Your task to perform on an android device: Open Yahoo.com Image 0: 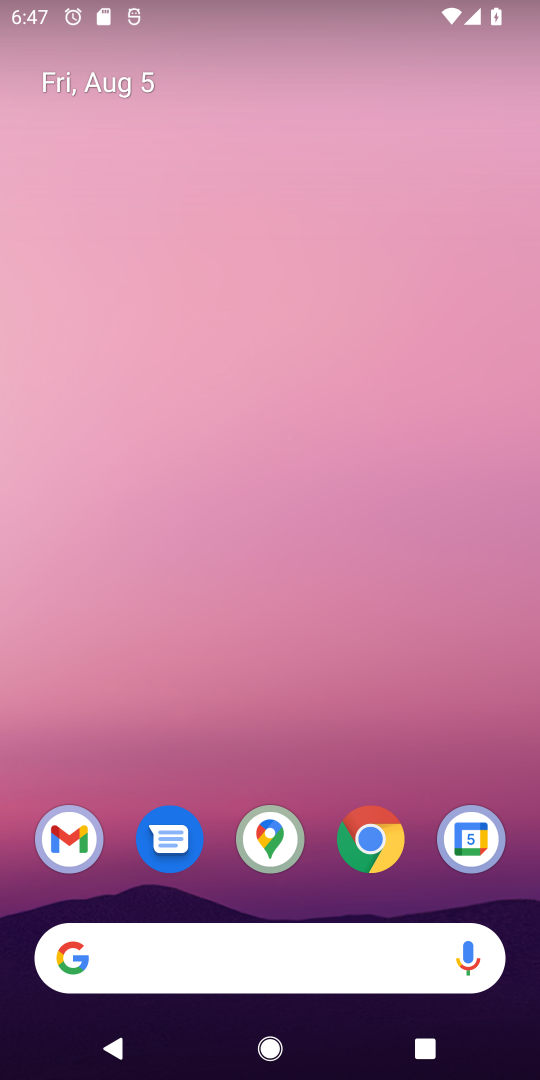
Step 0: click (379, 860)
Your task to perform on an android device: Open Yahoo.com Image 1: 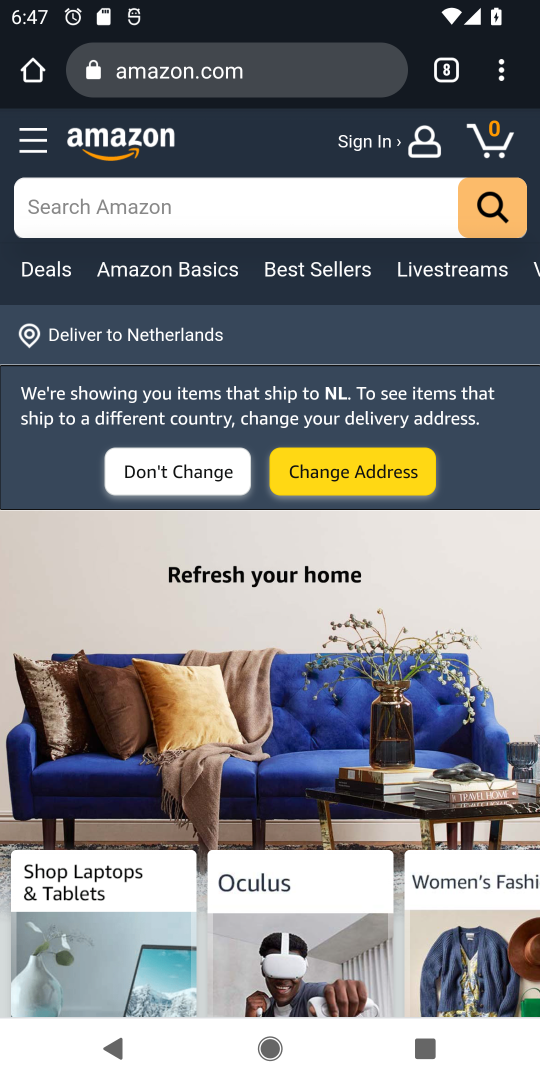
Step 1: click (444, 68)
Your task to perform on an android device: Open Yahoo.com Image 2: 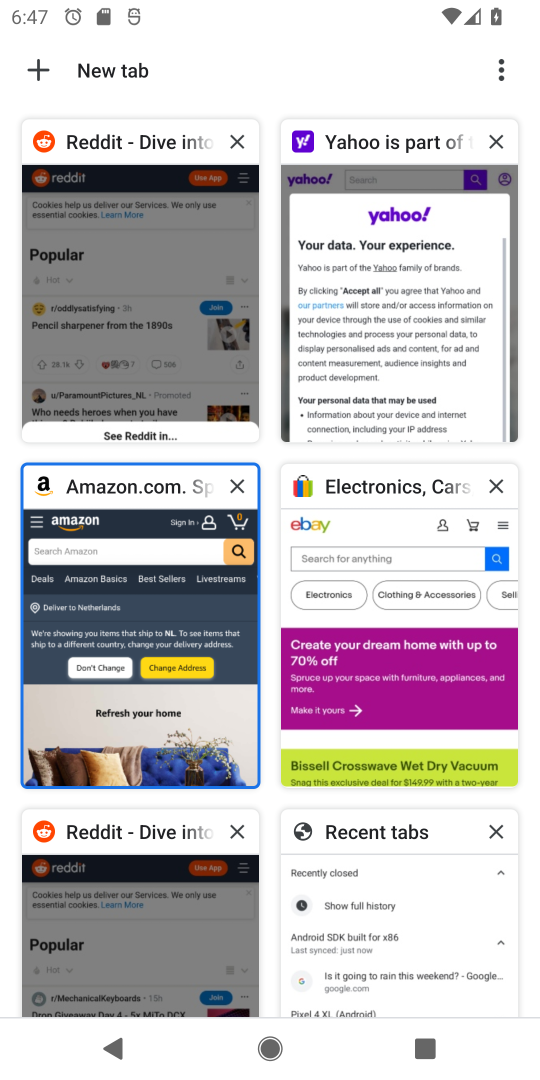
Step 2: click (29, 53)
Your task to perform on an android device: Open Yahoo.com Image 3: 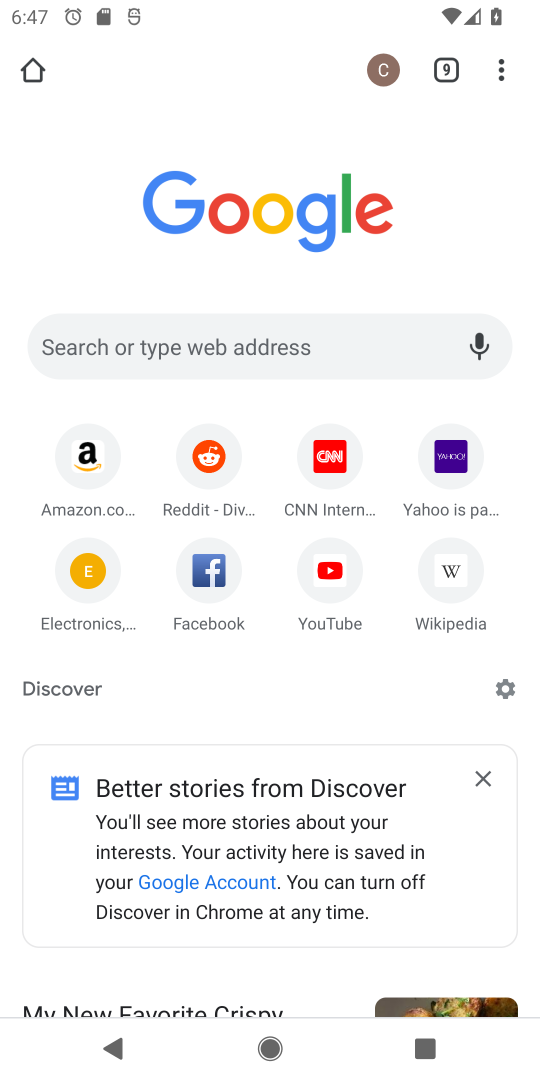
Step 3: click (447, 467)
Your task to perform on an android device: Open Yahoo.com Image 4: 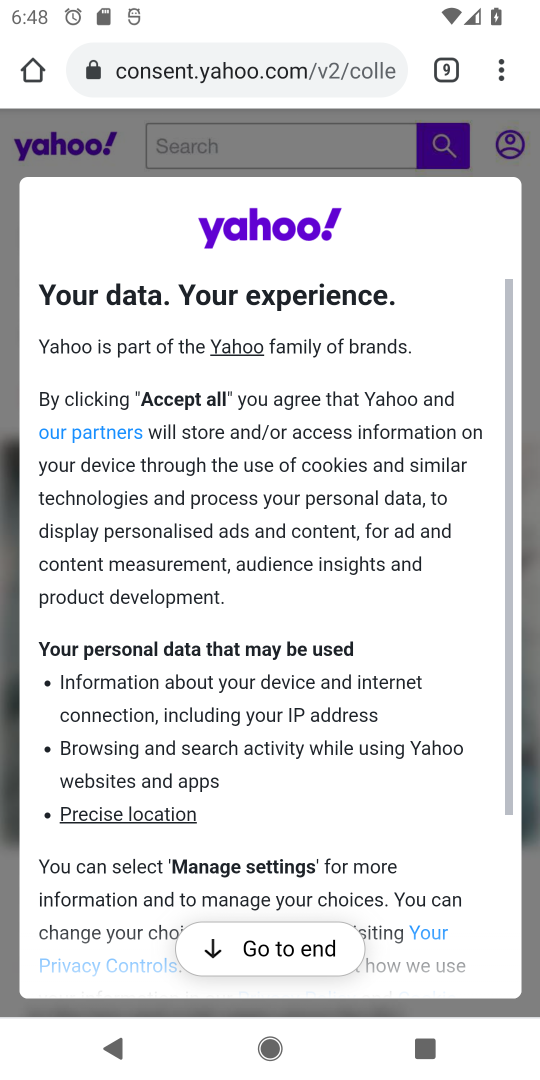
Step 4: task complete